Your task to perform on an android device: Open Wikipedia Image 0: 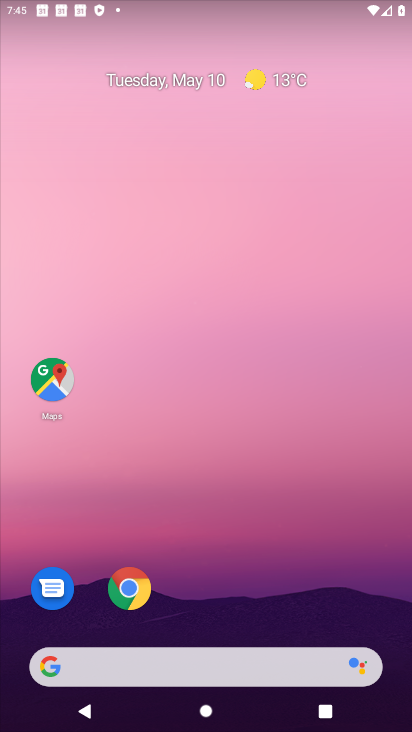
Step 0: click (126, 594)
Your task to perform on an android device: Open Wikipedia Image 1: 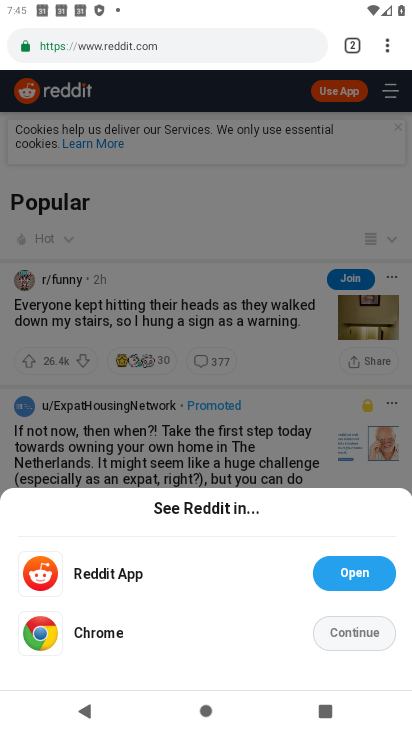
Step 1: click (355, 46)
Your task to perform on an android device: Open Wikipedia Image 2: 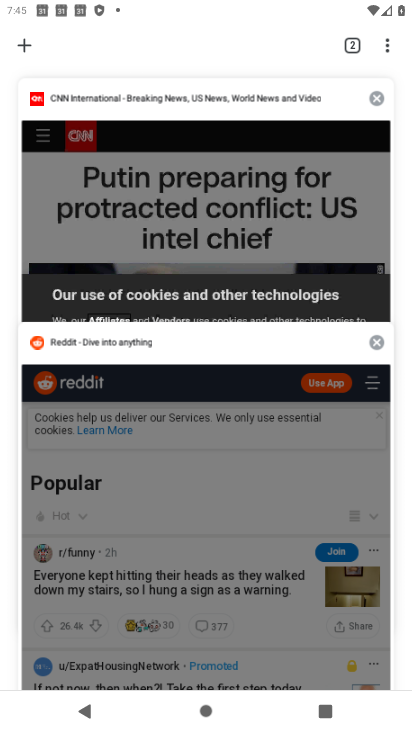
Step 2: click (27, 48)
Your task to perform on an android device: Open Wikipedia Image 3: 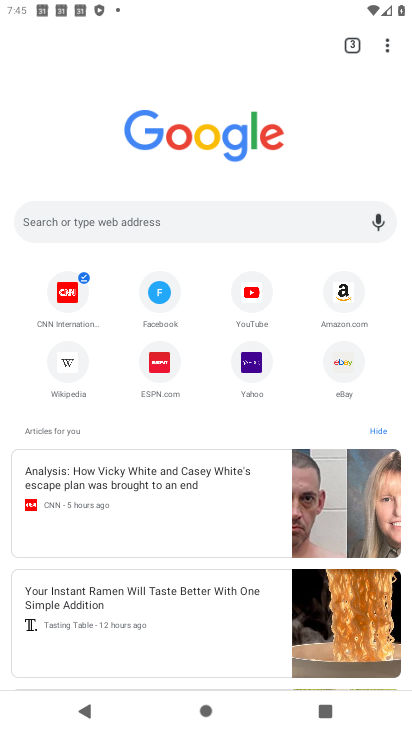
Step 3: click (71, 359)
Your task to perform on an android device: Open Wikipedia Image 4: 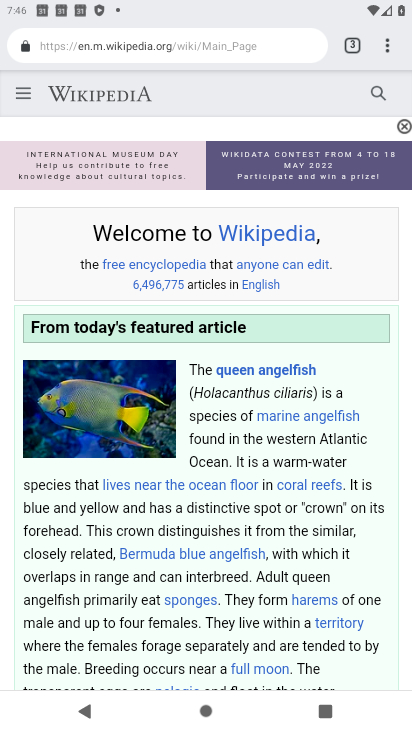
Step 4: task complete